Your task to perform on an android device: Open maps Image 0: 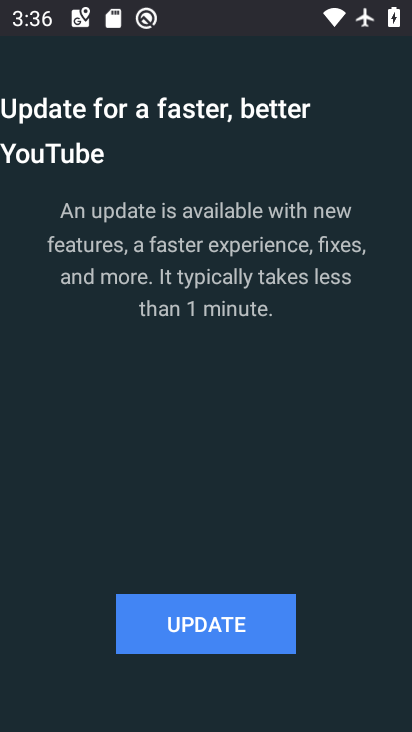
Step 0: press home button
Your task to perform on an android device: Open maps Image 1: 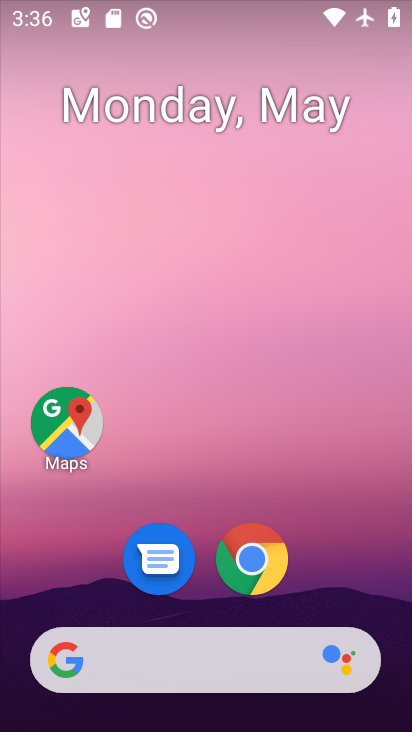
Step 1: click (57, 419)
Your task to perform on an android device: Open maps Image 2: 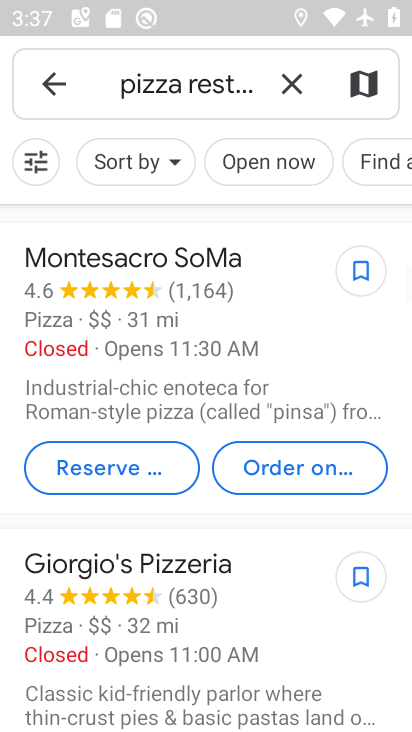
Step 2: task complete